Your task to perform on an android device: add a contact in the contacts app Image 0: 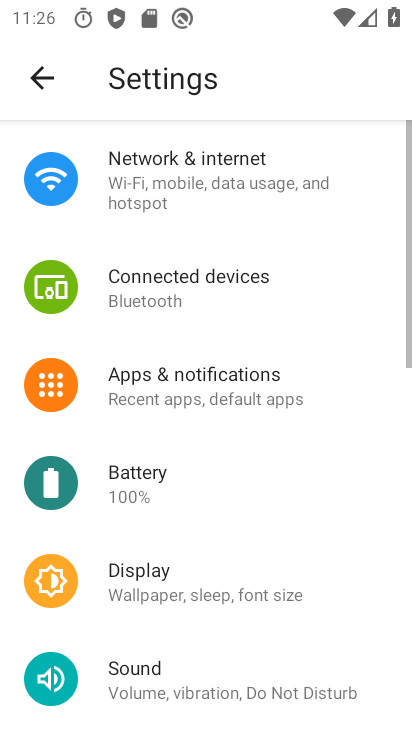
Step 0: press home button
Your task to perform on an android device: add a contact in the contacts app Image 1: 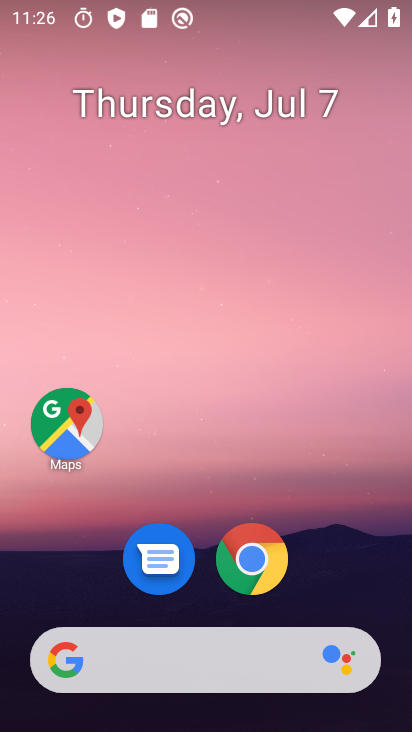
Step 1: drag from (367, 586) to (400, 115)
Your task to perform on an android device: add a contact in the contacts app Image 2: 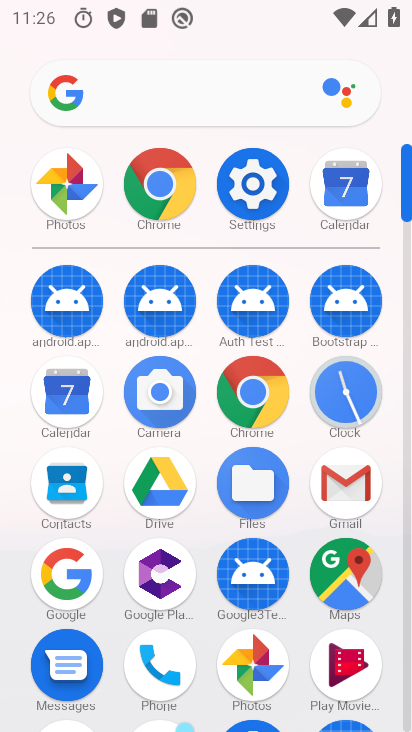
Step 2: click (74, 481)
Your task to perform on an android device: add a contact in the contacts app Image 3: 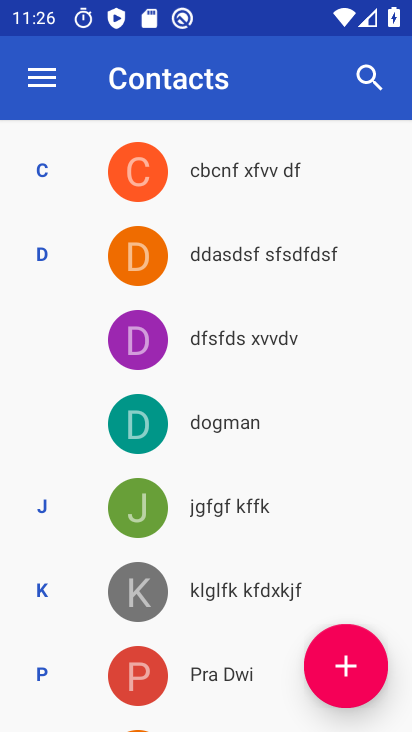
Step 3: click (352, 696)
Your task to perform on an android device: add a contact in the contacts app Image 4: 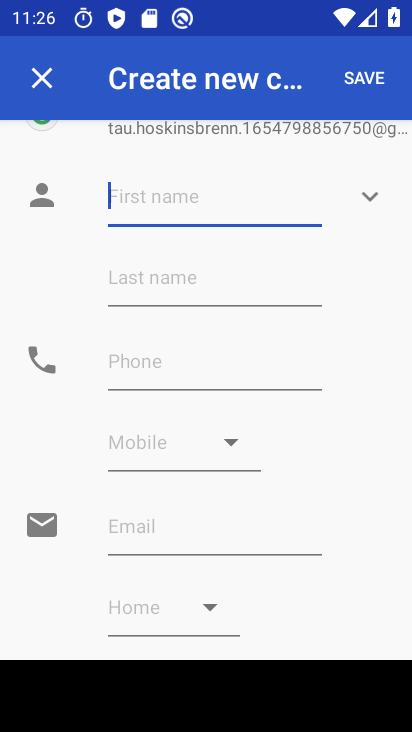
Step 4: click (254, 209)
Your task to perform on an android device: add a contact in the contacts app Image 5: 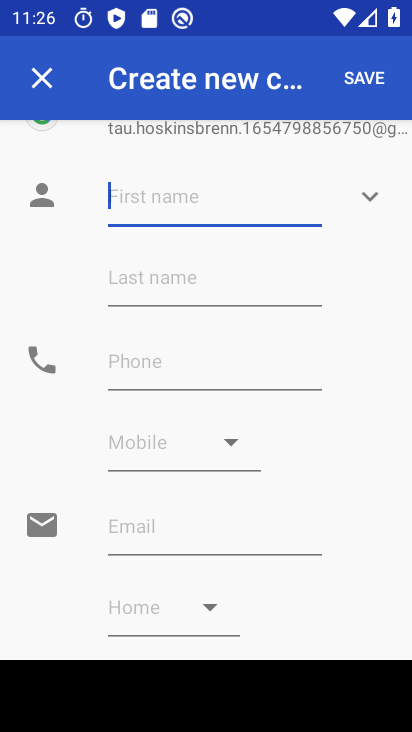
Step 5: type "gggg"
Your task to perform on an android device: add a contact in the contacts app Image 6: 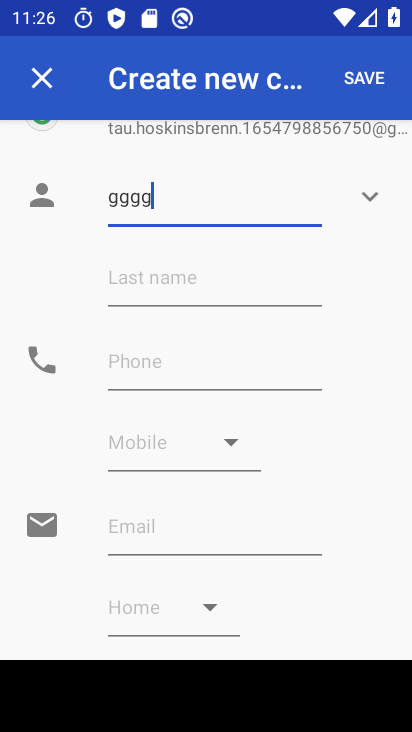
Step 6: click (146, 375)
Your task to perform on an android device: add a contact in the contacts app Image 7: 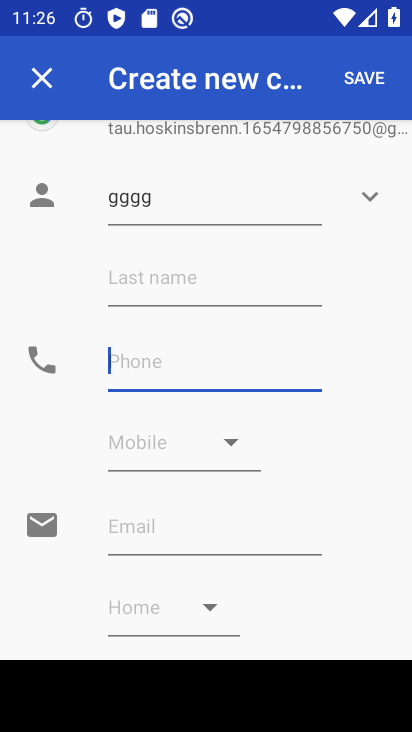
Step 7: type "12345556789"
Your task to perform on an android device: add a contact in the contacts app Image 8: 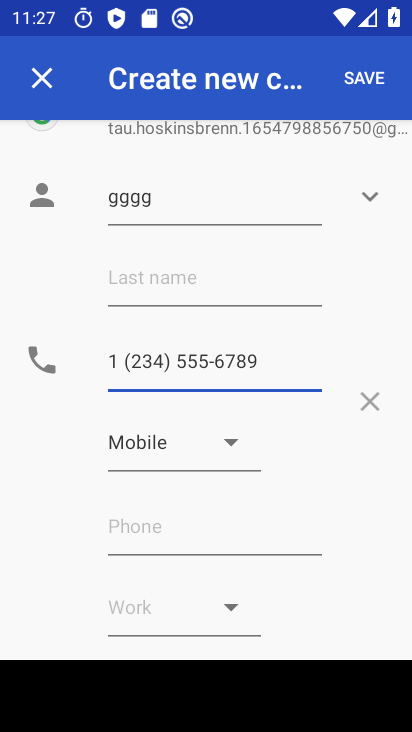
Step 8: click (369, 98)
Your task to perform on an android device: add a contact in the contacts app Image 9: 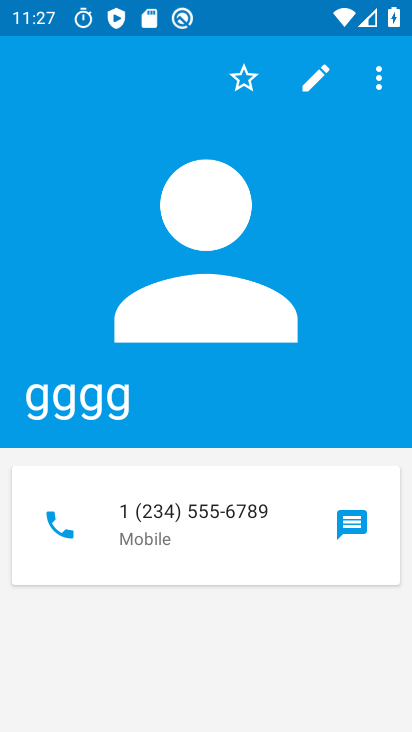
Step 9: task complete